Your task to perform on an android device: turn notification dots off Image 0: 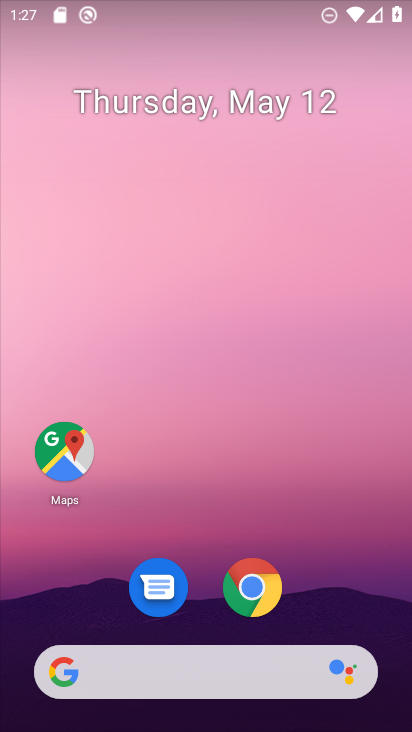
Step 0: drag from (232, 518) to (199, 23)
Your task to perform on an android device: turn notification dots off Image 1: 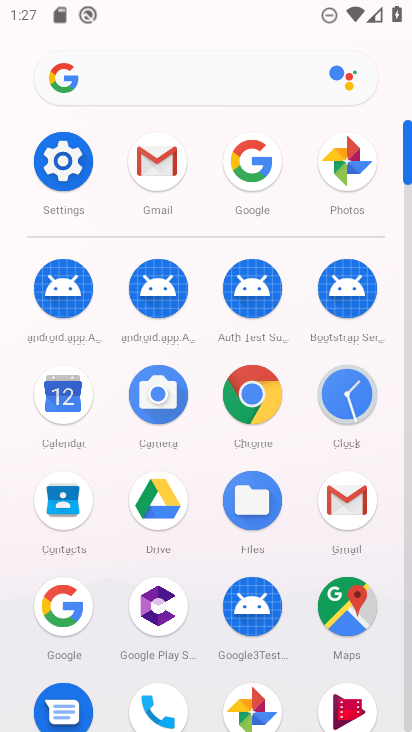
Step 1: click (62, 159)
Your task to perform on an android device: turn notification dots off Image 2: 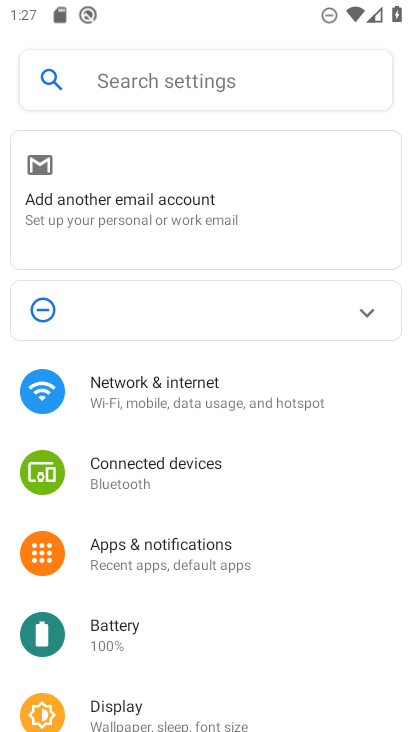
Step 2: click (119, 559)
Your task to perform on an android device: turn notification dots off Image 3: 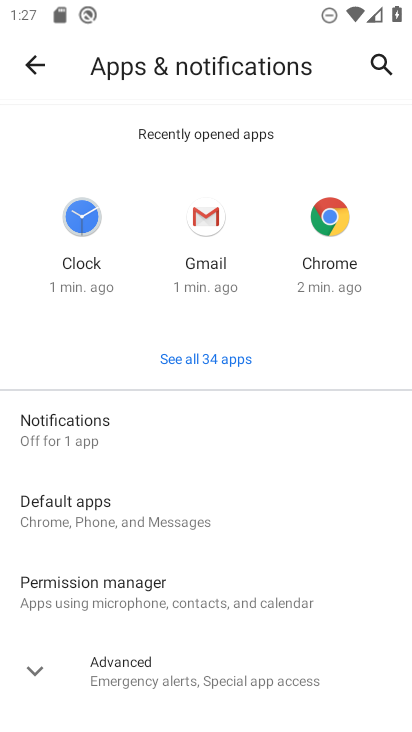
Step 3: click (78, 420)
Your task to perform on an android device: turn notification dots off Image 4: 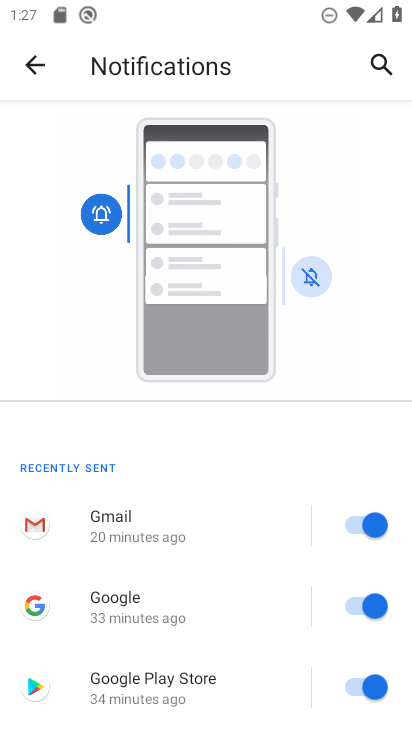
Step 4: drag from (190, 504) to (252, 254)
Your task to perform on an android device: turn notification dots off Image 5: 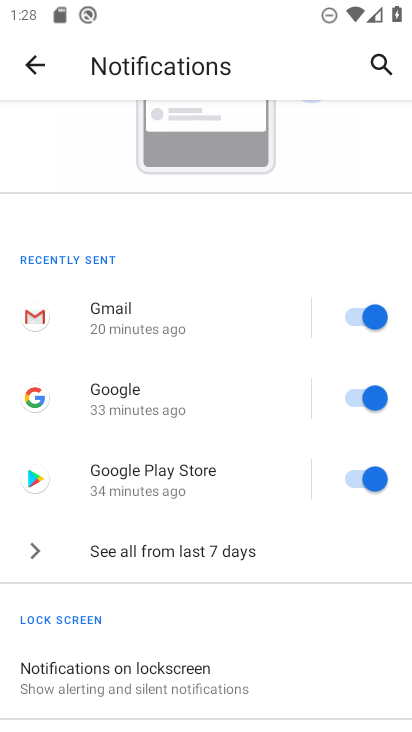
Step 5: drag from (180, 608) to (195, 282)
Your task to perform on an android device: turn notification dots off Image 6: 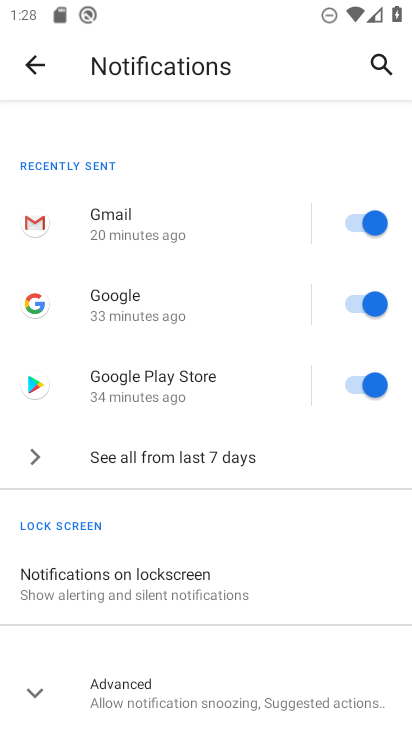
Step 6: click (184, 698)
Your task to perform on an android device: turn notification dots off Image 7: 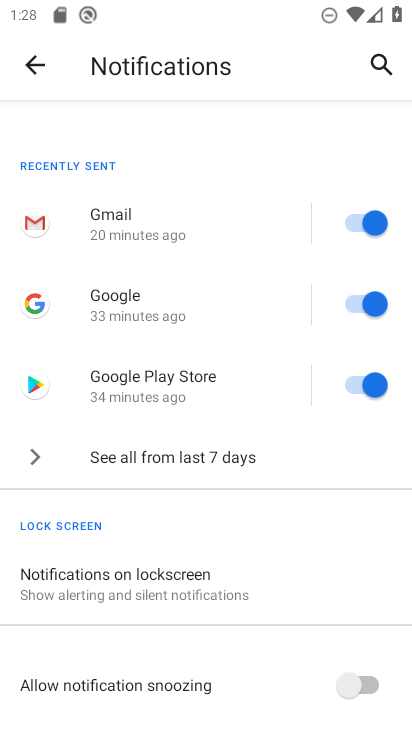
Step 7: drag from (92, 643) to (163, 438)
Your task to perform on an android device: turn notification dots off Image 8: 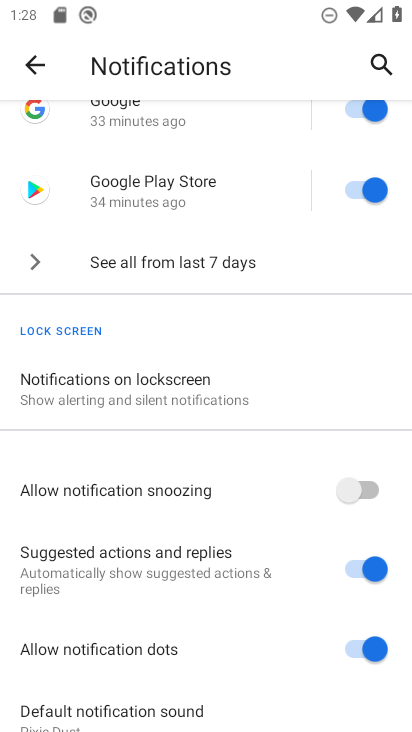
Step 8: click (382, 648)
Your task to perform on an android device: turn notification dots off Image 9: 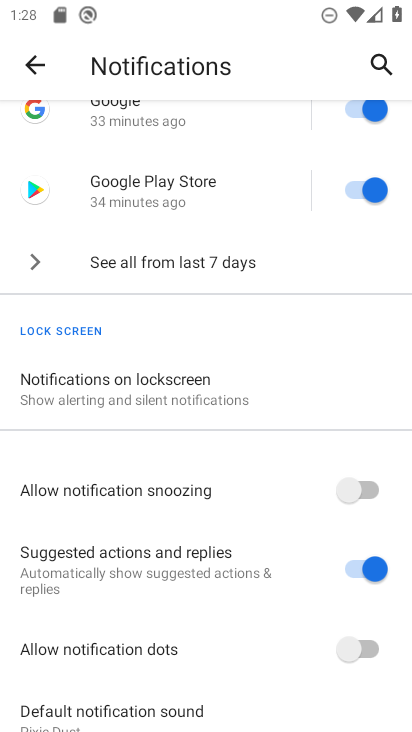
Step 9: task complete